Your task to perform on an android device: turn on wifi Image 0: 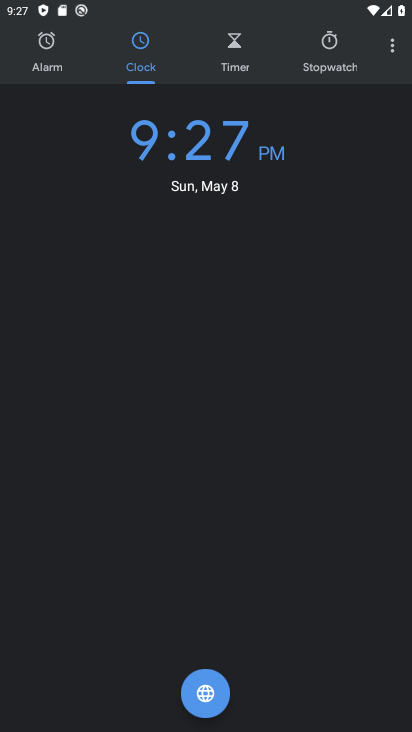
Step 0: press home button
Your task to perform on an android device: turn on wifi Image 1: 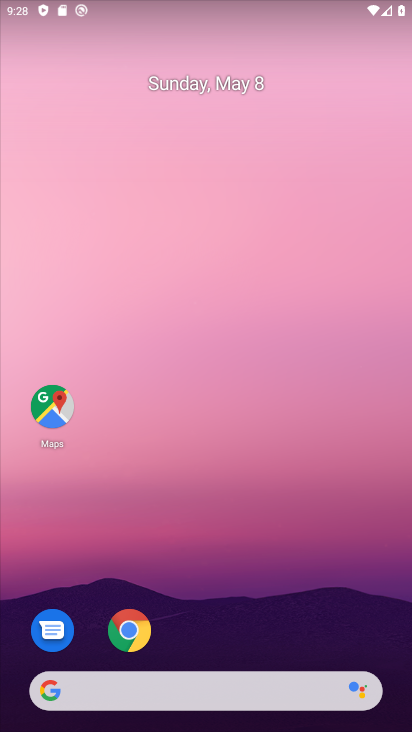
Step 1: drag from (322, 617) to (306, 58)
Your task to perform on an android device: turn on wifi Image 2: 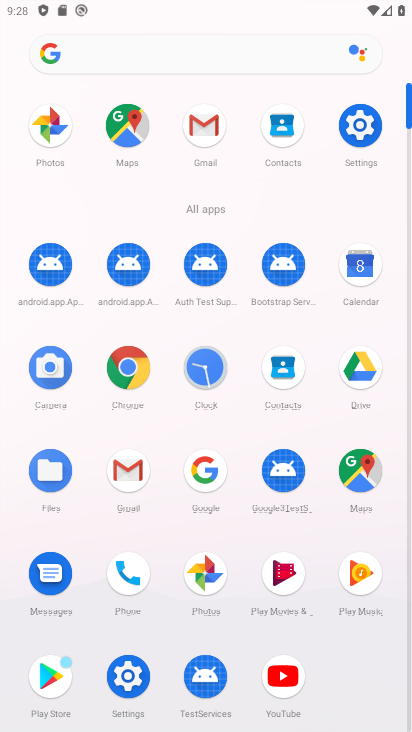
Step 2: click (370, 119)
Your task to perform on an android device: turn on wifi Image 3: 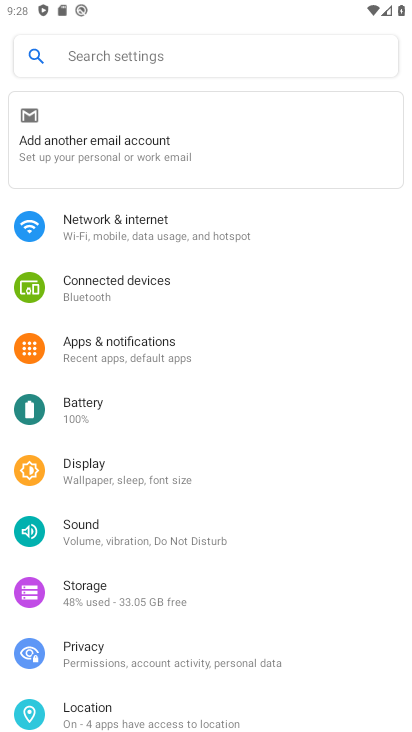
Step 3: click (200, 235)
Your task to perform on an android device: turn on wifi Image 4: 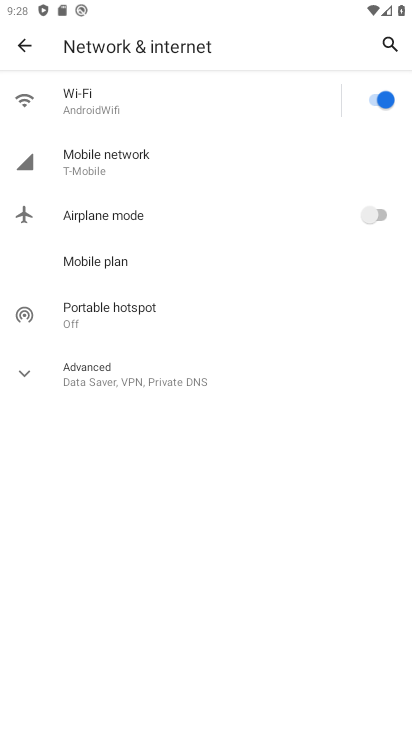
Step 4: click (79, 98)
Your task to perform on an android device: turn on wifi Image 5: 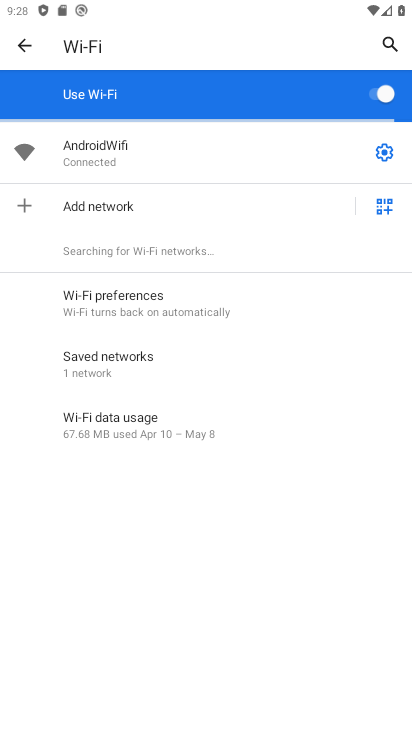
Step 5: task complete